Your task to perform on an android device: add a label to a message in the gmail app Image 0: 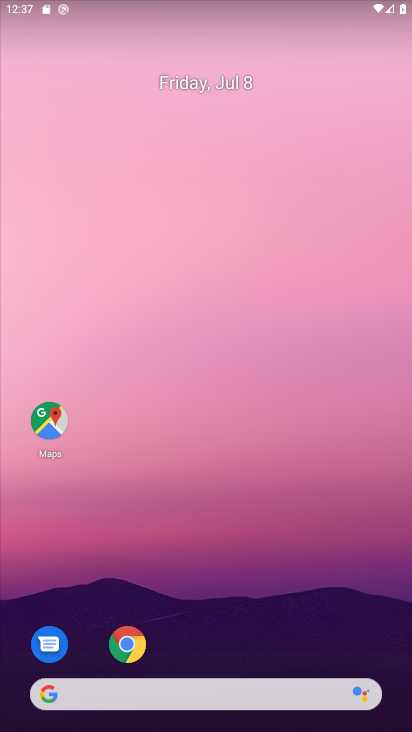
Step 0: drag from (198, 571) to (280, 149)
Your task to perform on an android device: add a label to a message in the gmail app Image 1: 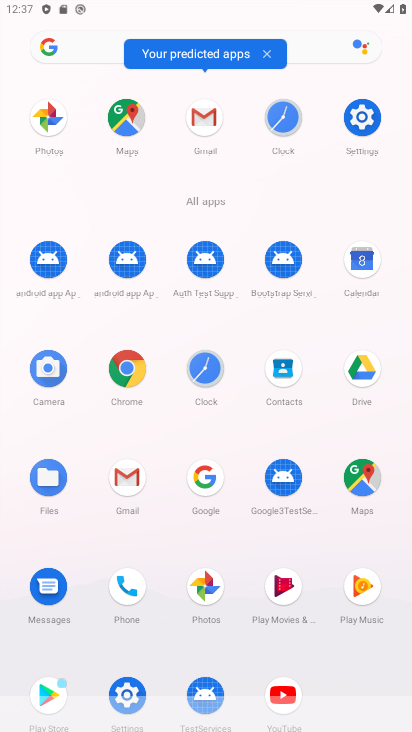
Step 1: click (128, 471)
Your task to perform on an android device: add a label to a message in the gmail app Image 2: 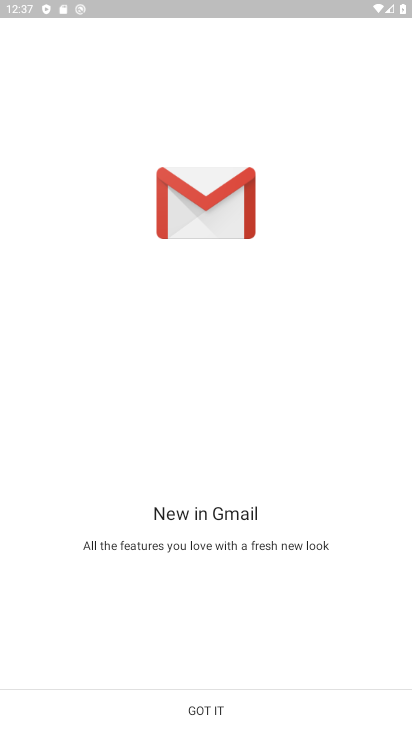
Step 2: click (190, 716)
Your task to perform on an android device: add a label to a message in the gmail app Image 3: 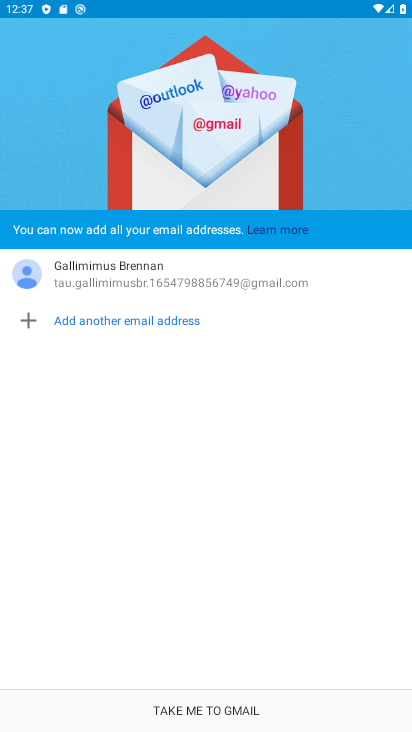
Step 3: click (219, 712)
Your task to perform on an android device: add a label to a message in the gmail app Image 4: 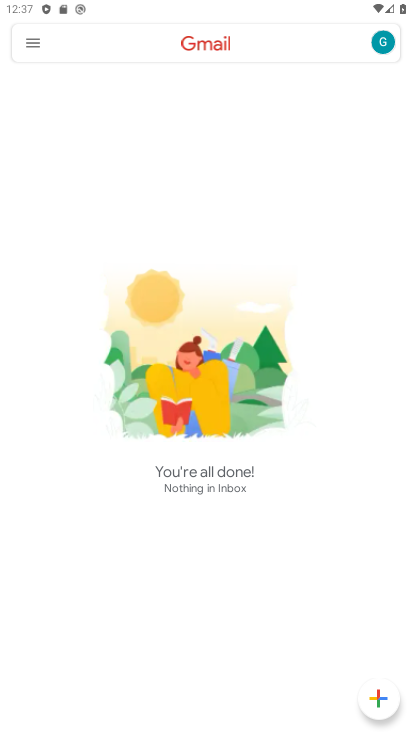
Step 4: task complete